Your task to perform on an android device: Go to Amazon Image 0: 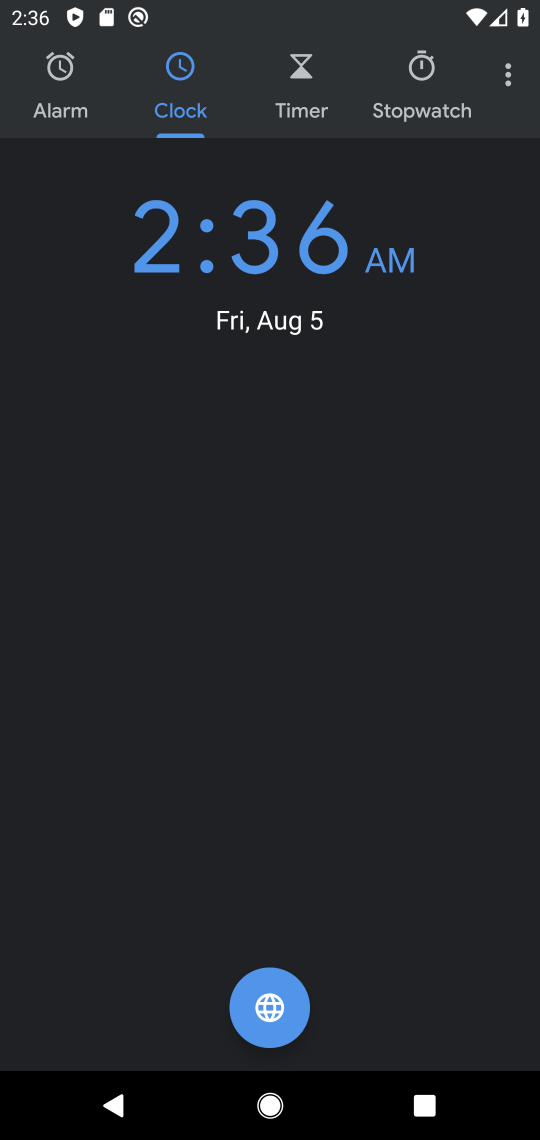
Step 0: press home button
Your task to perform on an android device: Go to Amazon Image 1: 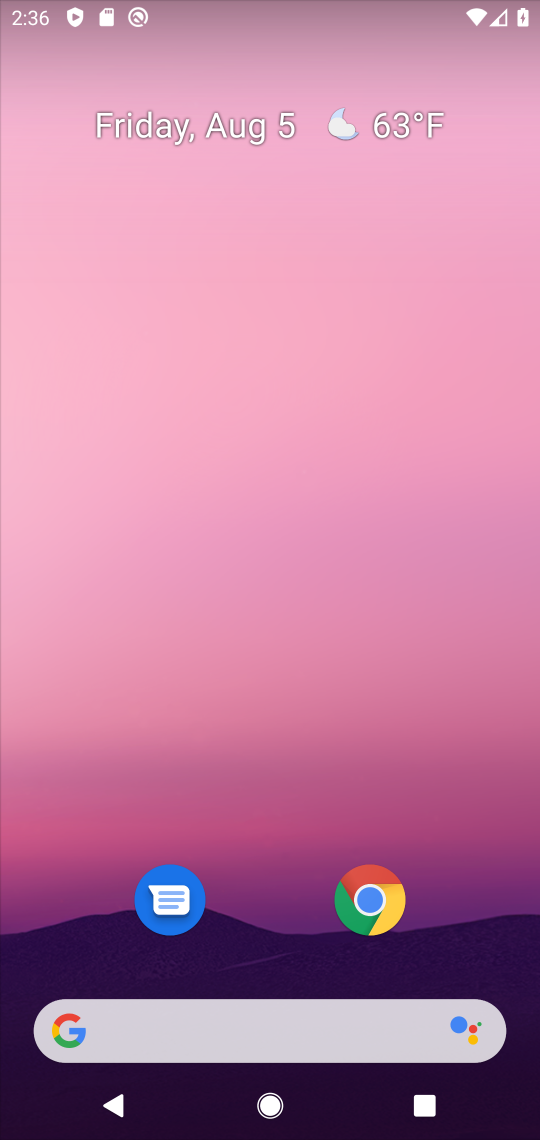
Step 1: click (375, 909)
Your task to perform on an android device: Go to Amazon Image 2: 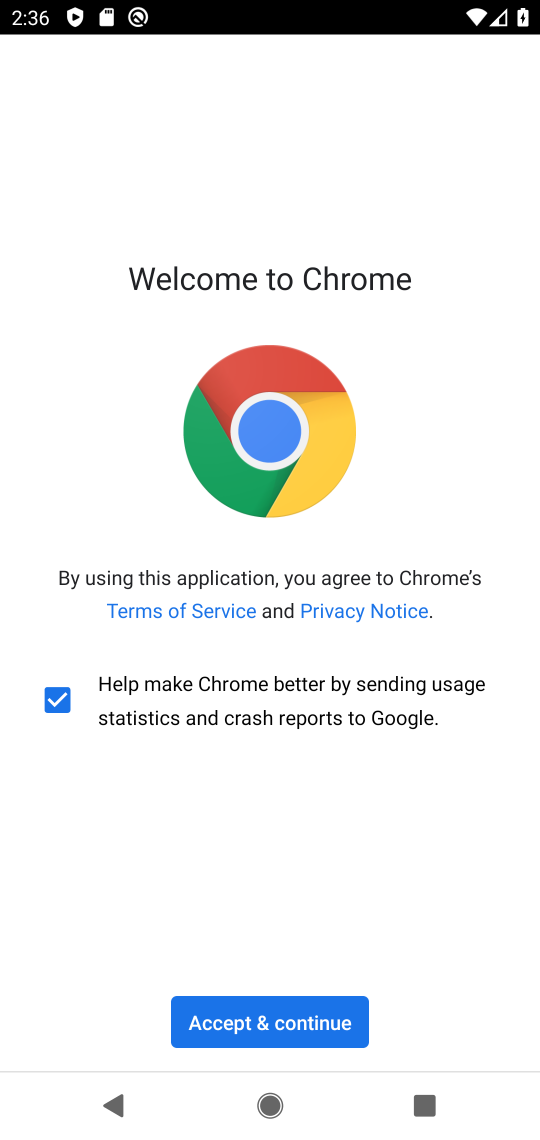
Step 2: click (284, 1012)
Your task to perform on an android device: Go to Amazon Image 3: 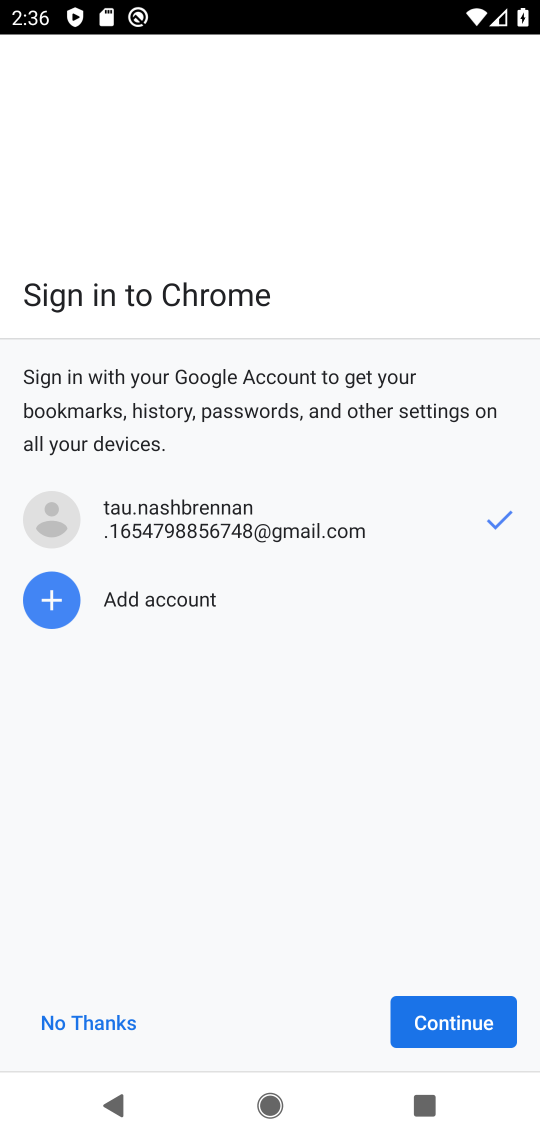
Step 3: click (284, 1012)
Your task to perform on an android device: Go to Amazon Image 4: 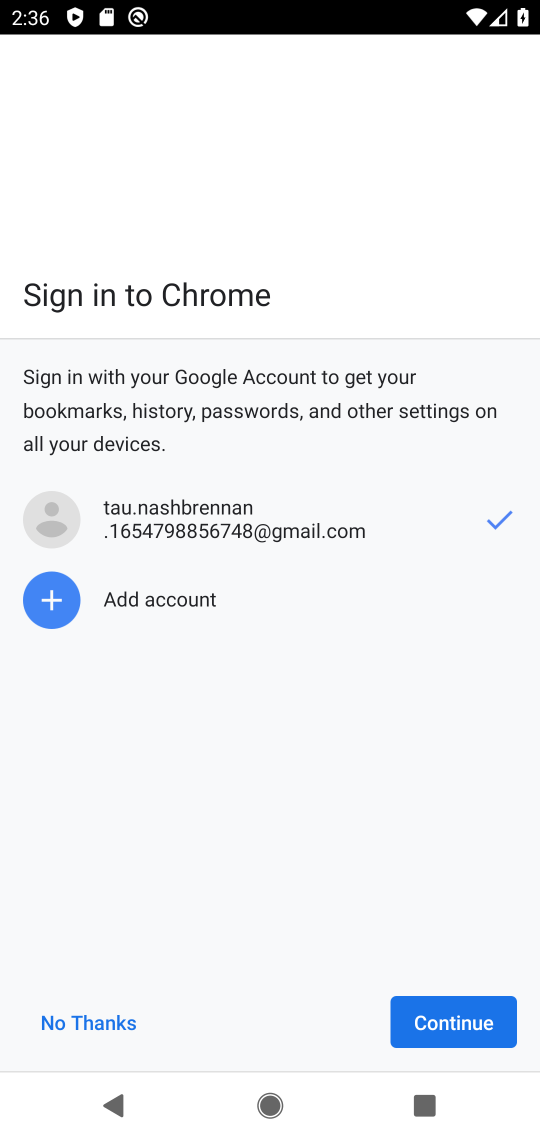
Step 4: click (446, 1008)
Your task to perform on an android device: Go to Amazon Image 5: 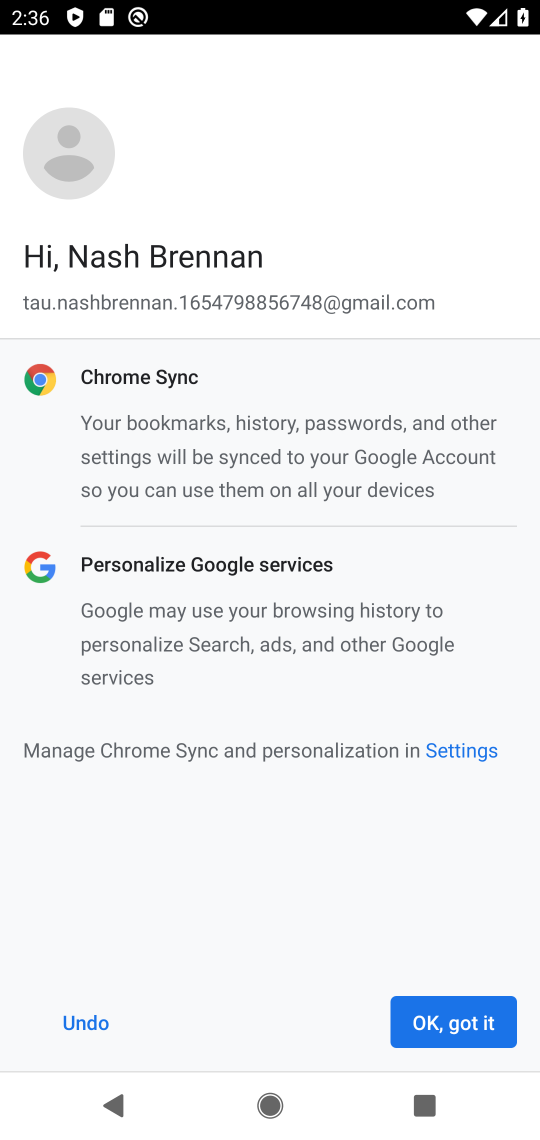
Step 5: click (446, 1008)
Your task to perform on an android device: Go to Amazon Image 6: 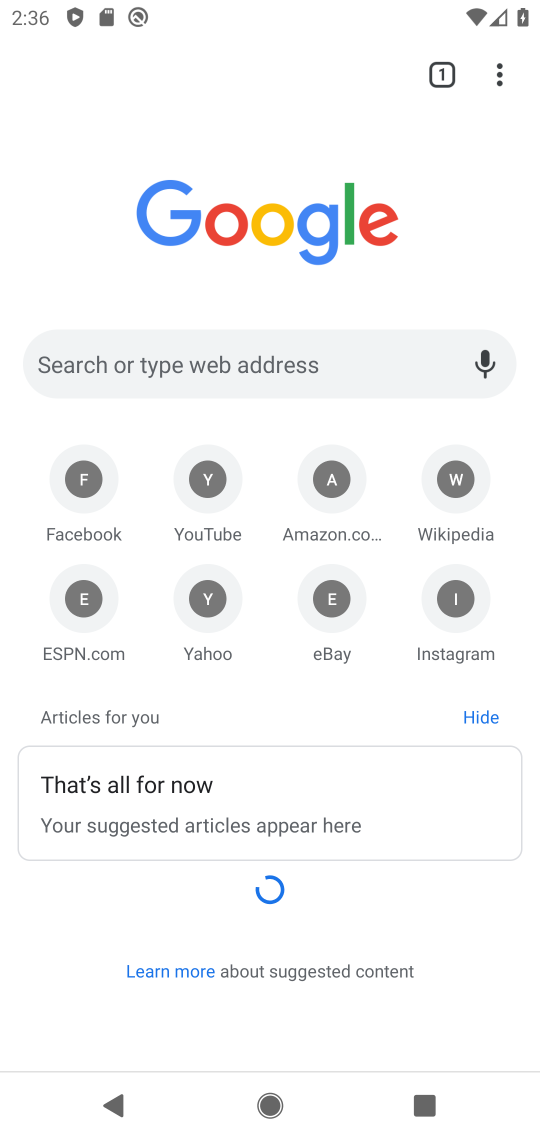
Step 6: click (507, 78)
Your task to perform on an android device: Go to Amazon Image 7: 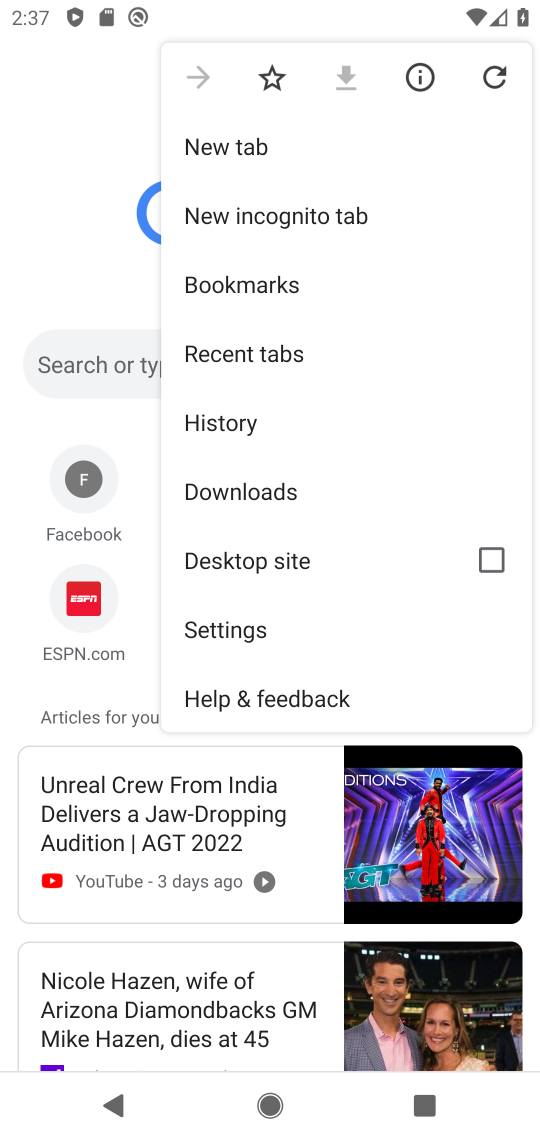
Step 7: click (94, 287)
Your task to perform on an android device: Go to Amazon Image 8: 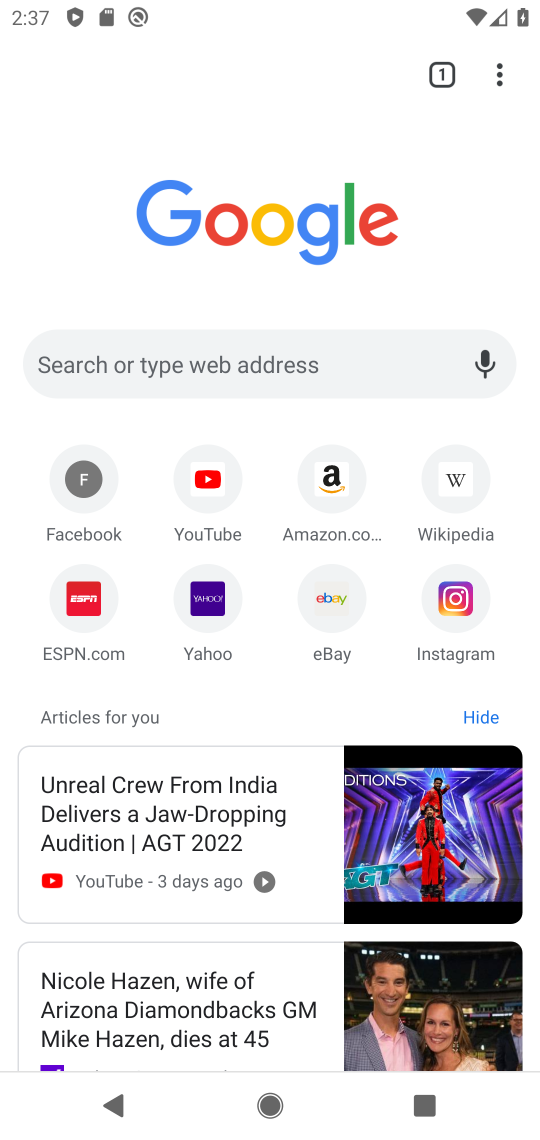
Step 8: click (312, 483)
Your task to perform on an android device: Go to Amazon Image 9: 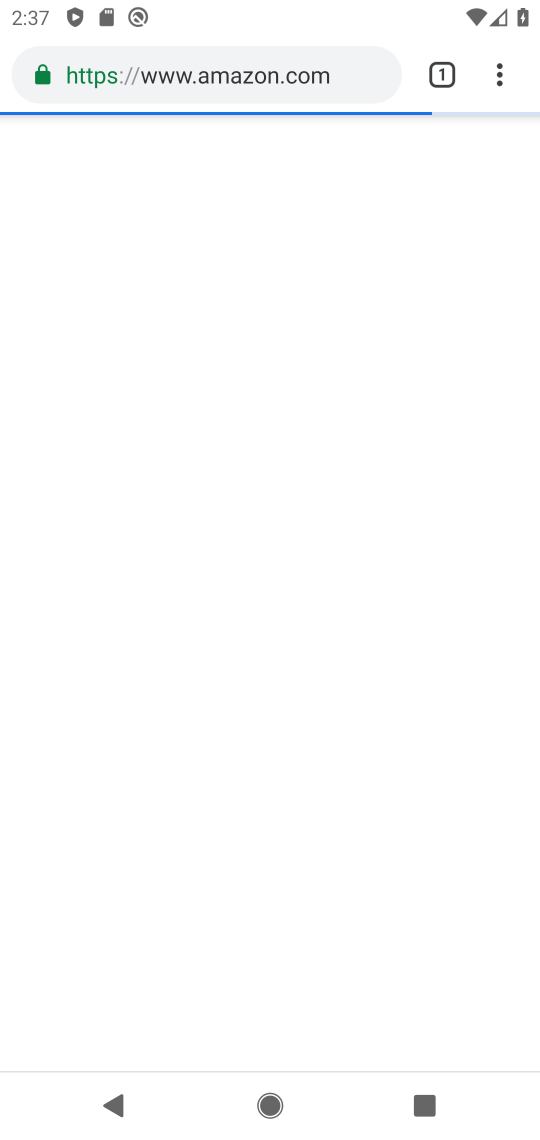
Step 9: task complete